Your task to perform on an android device: Open wifi settings Image 0: 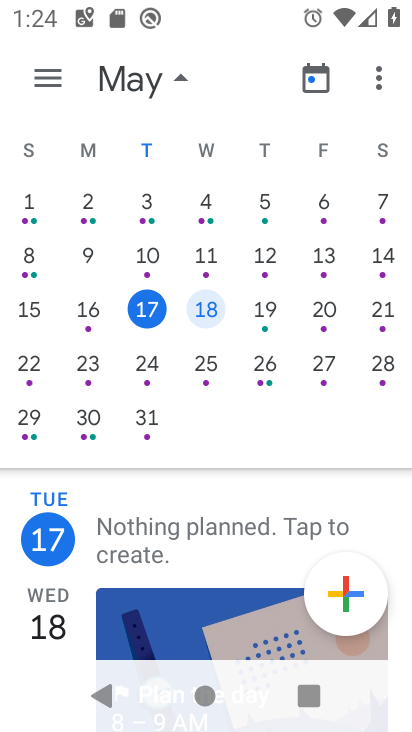
Step 0: press home button
Your task to perform on an android device: Open wifi settings Image 1: 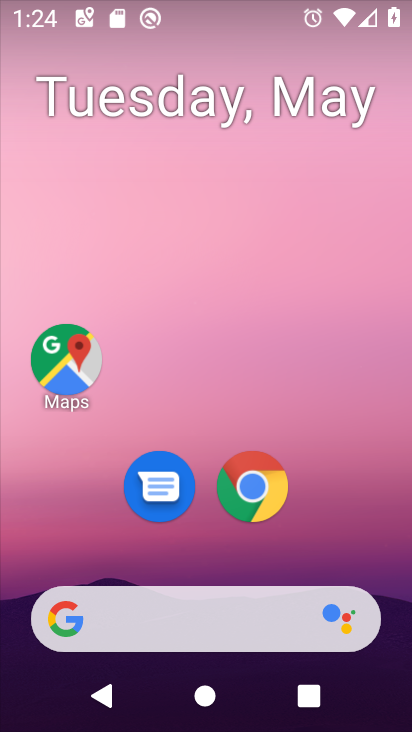
Step 1: drag from (207, 6) to (147, 486)
Your task to perform on an android device: Open wifi settings Image 2: 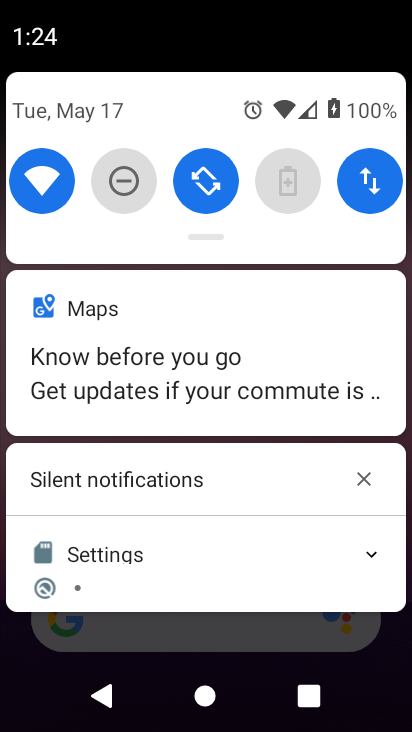
Step 2: click (35, 186)
Your task to perform on an android device: Open wifi settings Image 3: 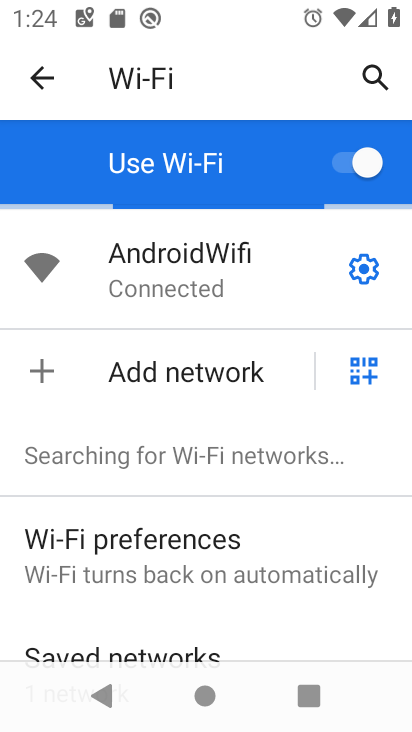
Step 3: click (370, 272)
Your task to perform on an android device: Open wifi settings Image 4: 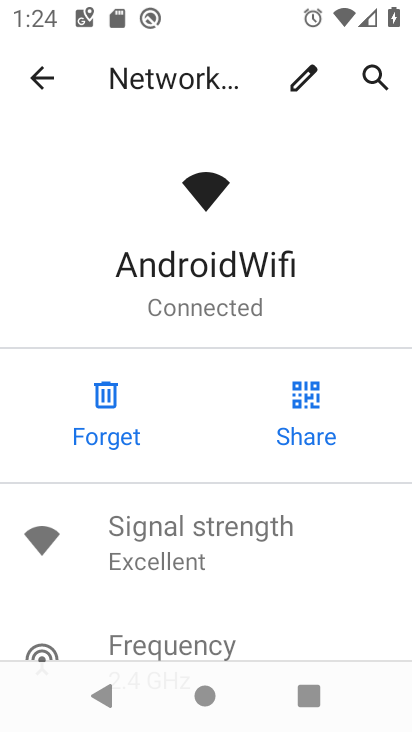
Step 4: task complete